Your task to perform on an android device: Search for good Italian restaurants Image 0: 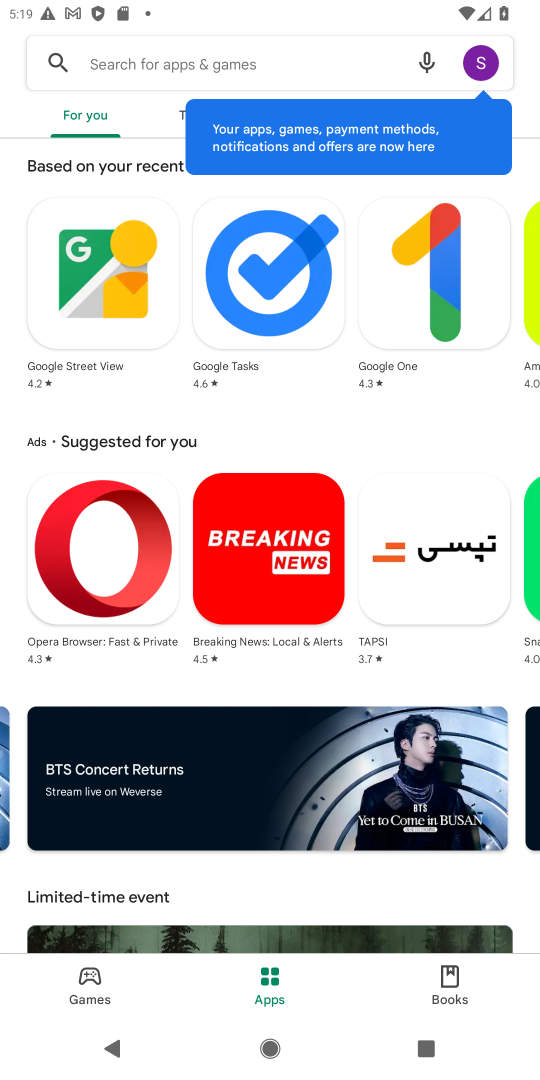
Step 0: press home button
Your task to perform on an android device: Search for good Italian restaurants Image 1: 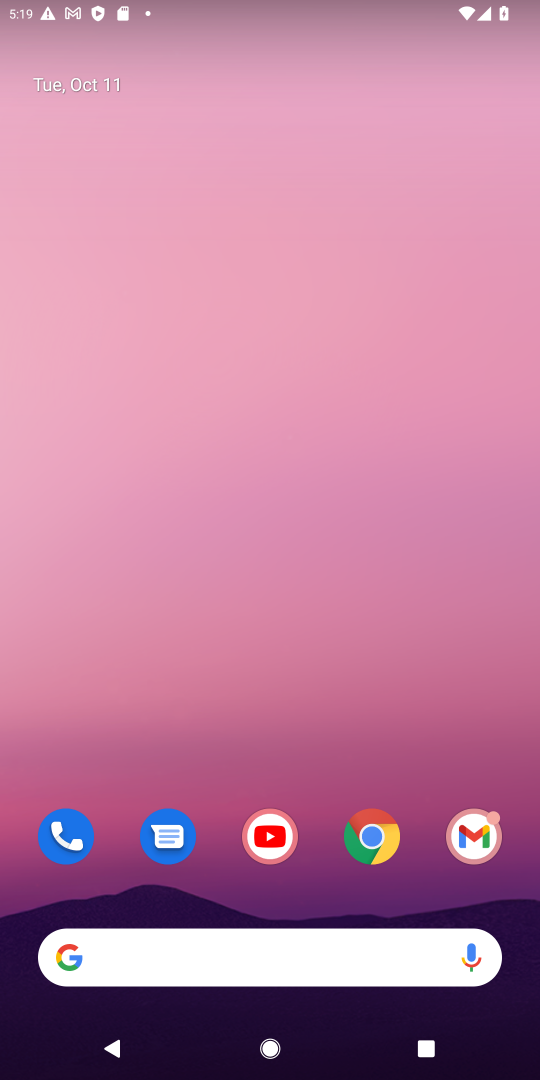
Step 1: drag from (319, 894) to (356, 146)
Your task to perform on an android device: Search for good Italian restaurants Image 2: 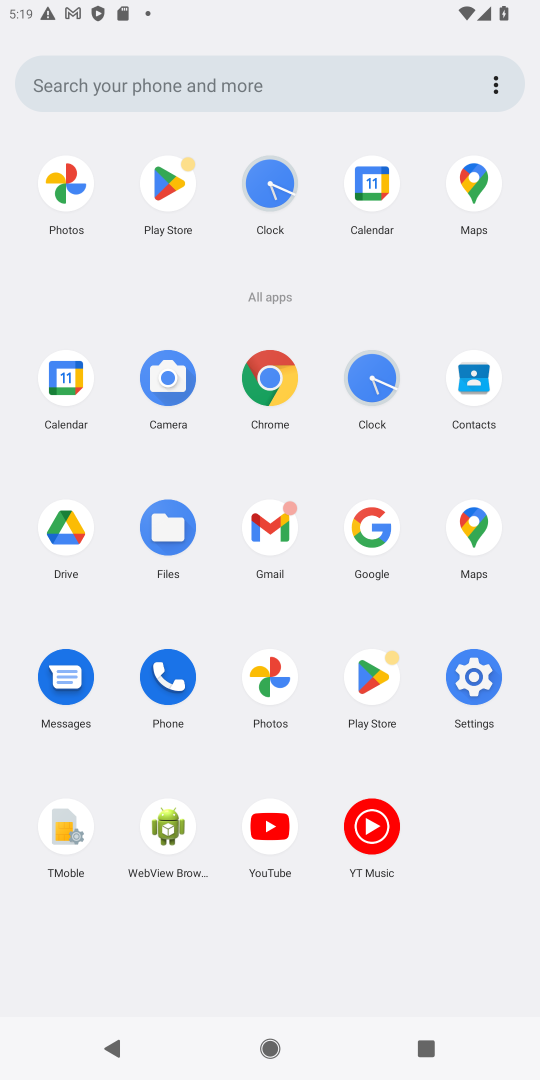
Step 2: click (472, 523)
Your task to perform on an android device: Search for good Italian restaurants Image 3: 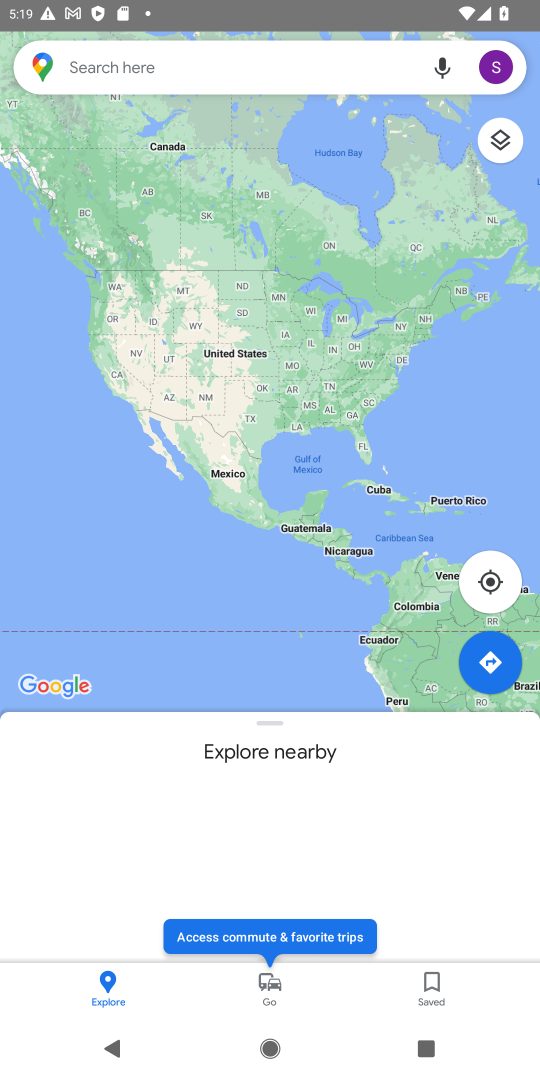
Step 3: click (142, 59)
Your task to perform on an android device: Search for good Italian restaurants Image 4: 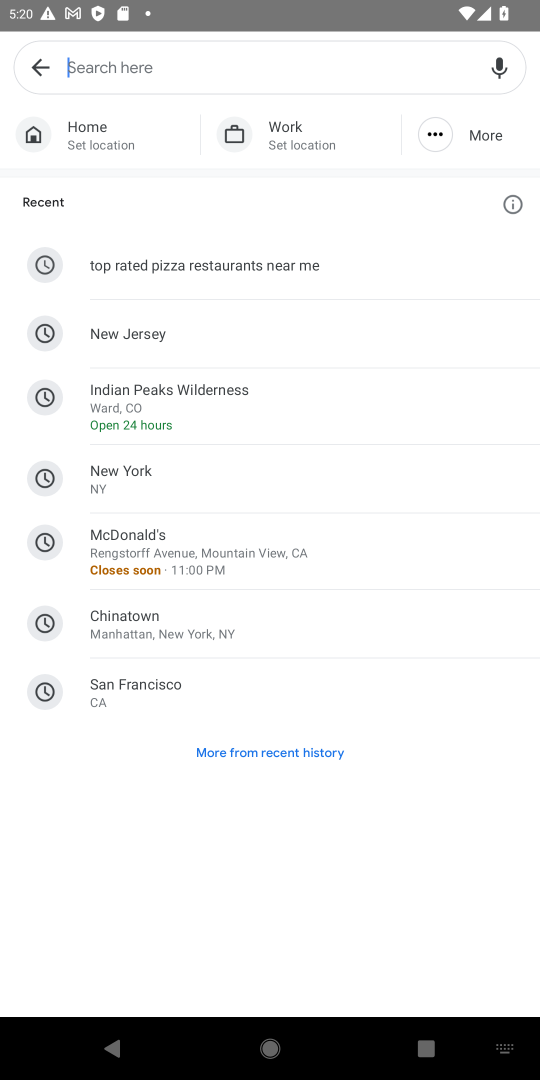
Step 4: type "good italian restaurants"
Your task to perform on an android device: Search for good Italian restaurants Image 5: 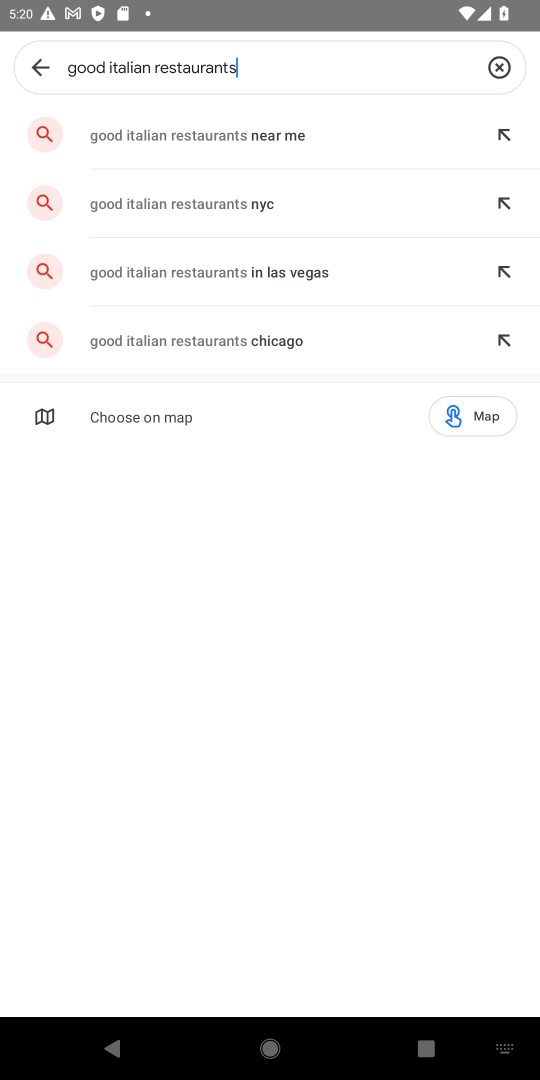
Step 5: click (212, 138)
Your task to perform on an android device: Search for good Italian restaurants Image 6: 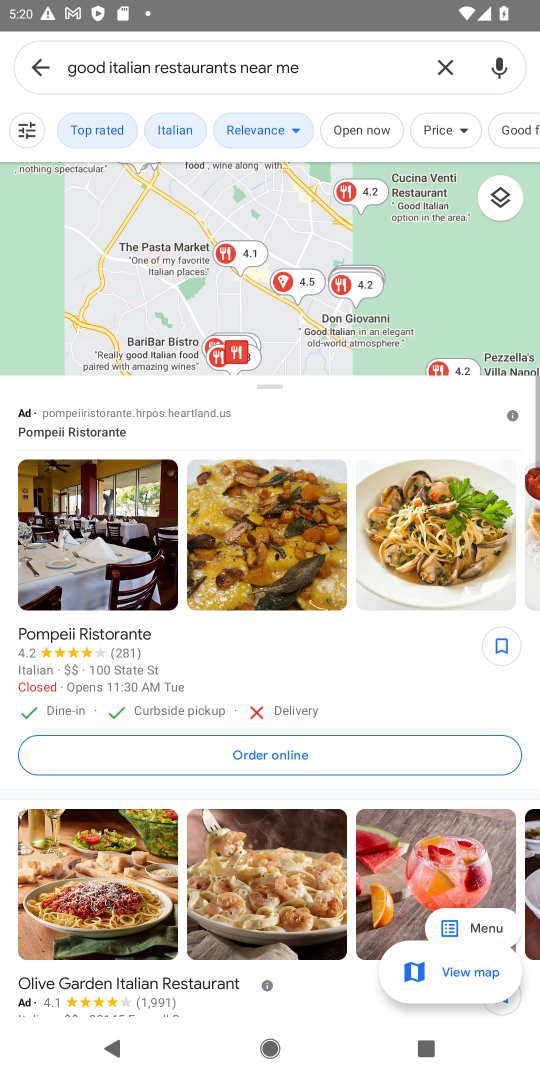
Step 6: task complete